Your task to perform on an android device: snooze an email in the gmail app Image 0: 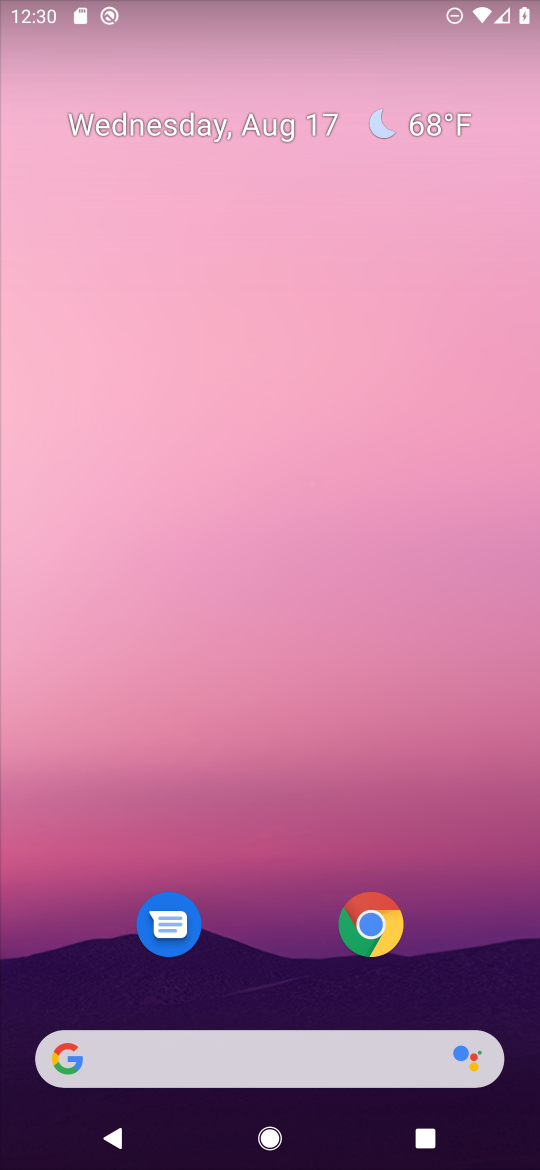
Step 0: drag from (260, 980) to (280, 190)
Your task to perform on an android device: snooze an email in the gmail app Image 1: 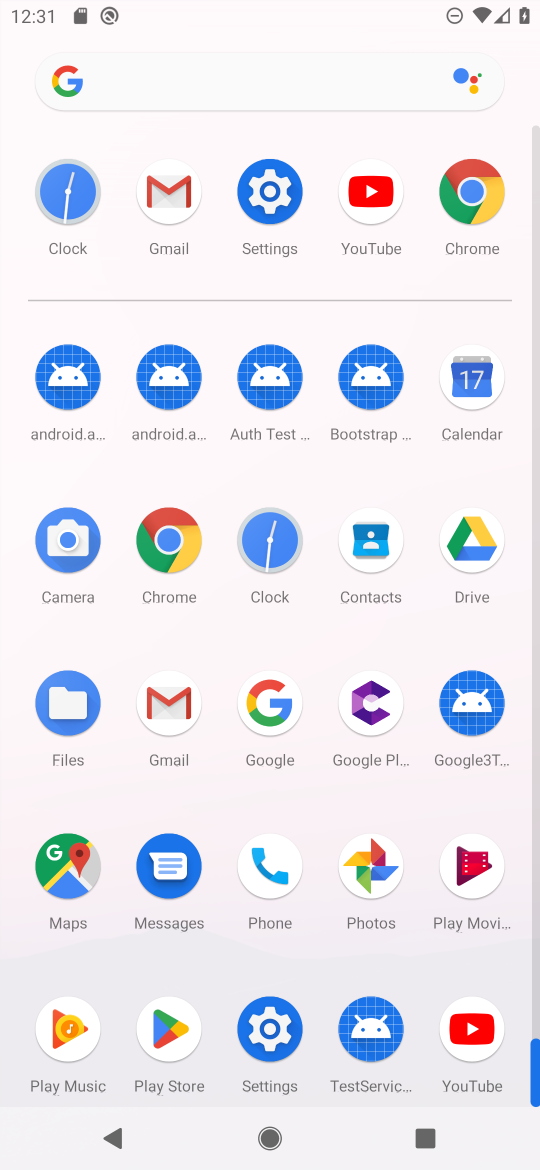
Step 1: click (179, 189)
Your task to perform on an android device: snooze an email in the gmail app Image 2: 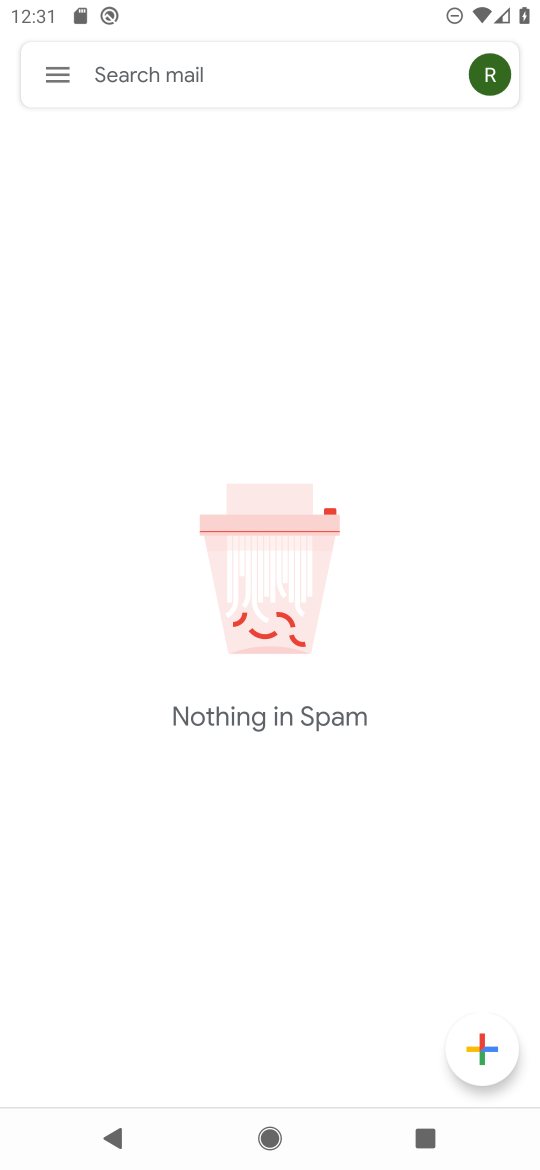
Step 2: click (55, 84)
Your task to perform on an android device: snooze an email in the gmail app Image 3: 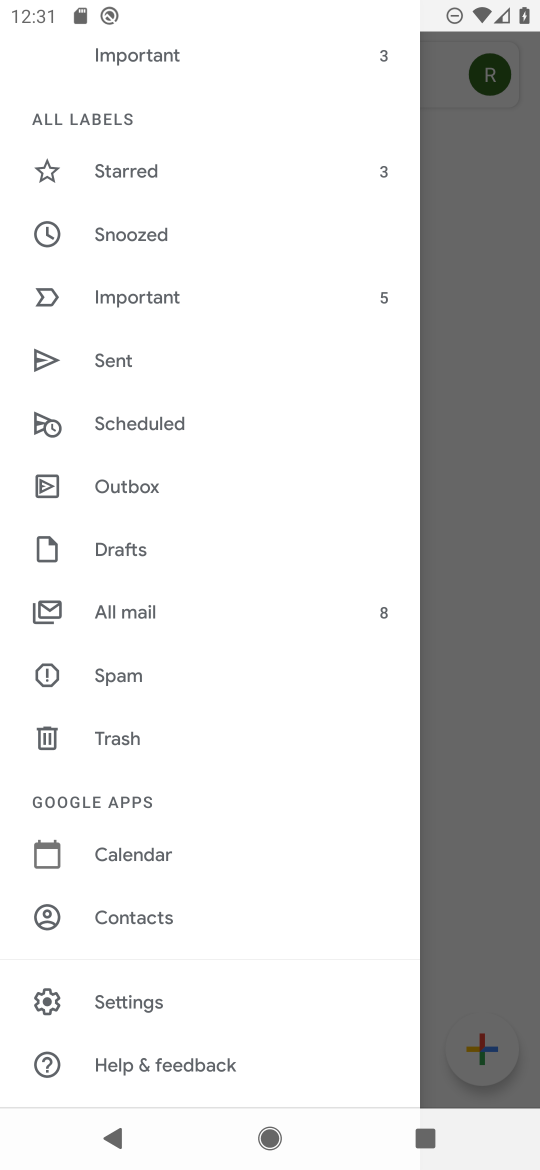
Step 3: drag from (228, 108) to (296, 933)
Your task to perform on an android device: snooze an email in the gmail app Image 4: 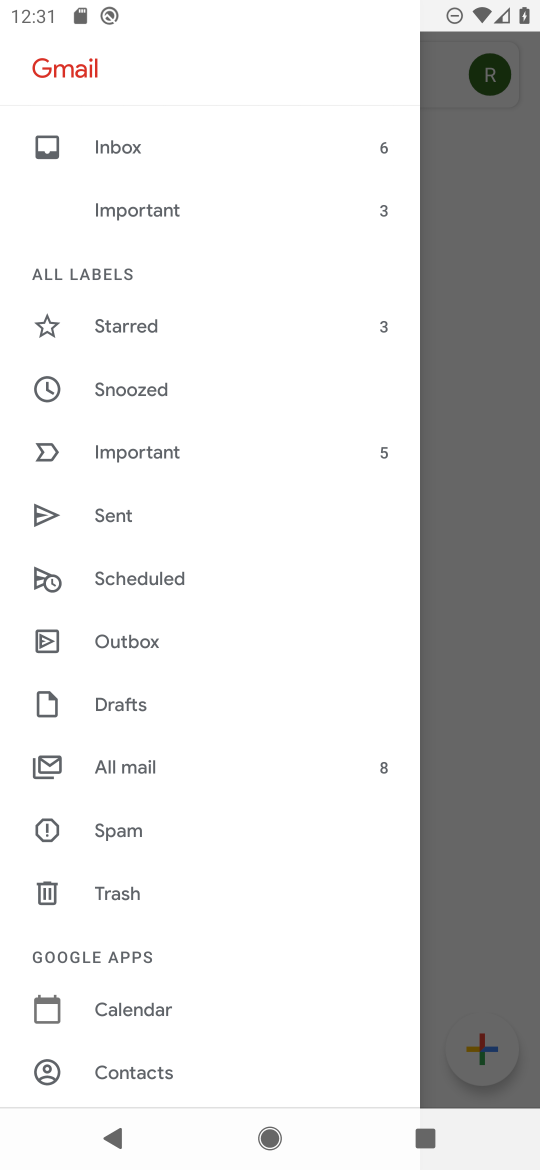
Step 4: click (216, 758)
Your task to perform on an android device: snooze an email in the gmail app Image 5: 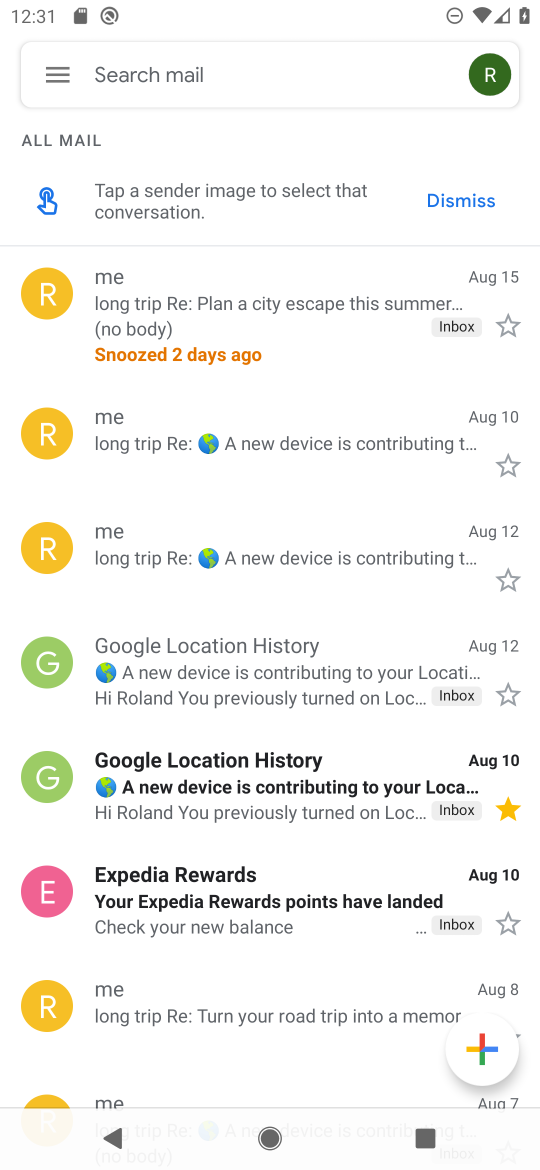
Step 5: click (48, 439)
Your task to perform on an android device: snooze an email in the gmail app Image 6: 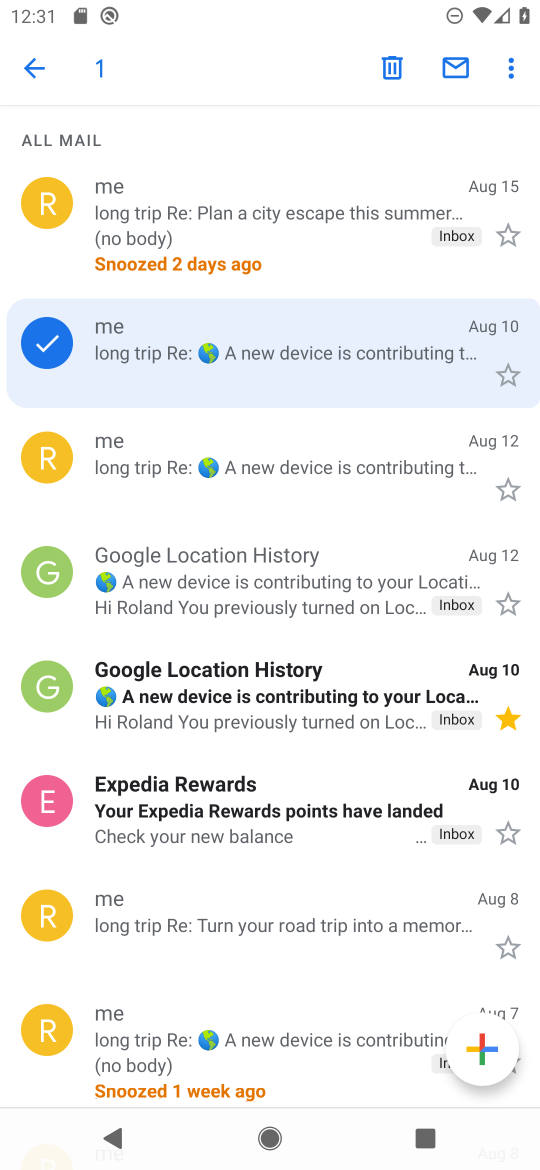
Step 6: click (520, 68)
Your task to perform on an android device: snooze an email in the gmail app Image 7: 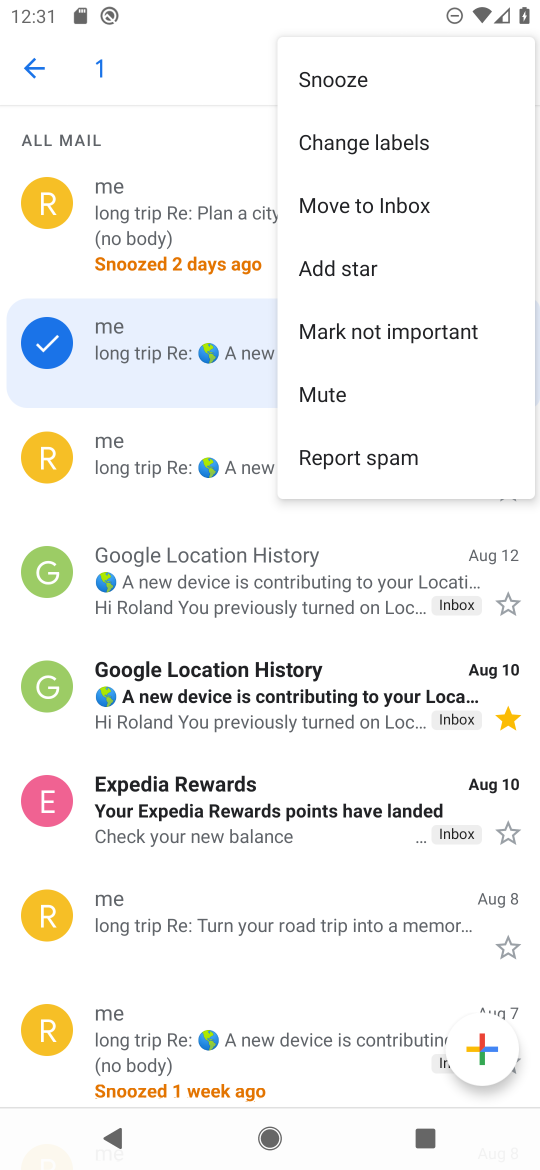
Step 7: click (376, 64)
Your task to perform on an android device: snooze an email in the gmail app Image 8: 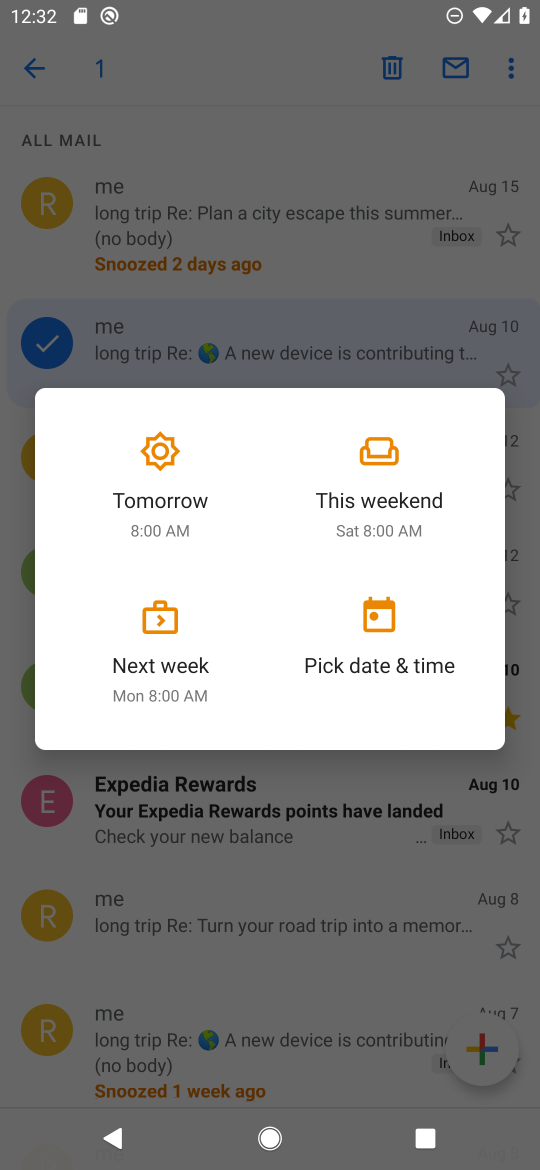
Step 8: click (179, 655)
Your task to perform on an android device: snooze an email in the gmail app Image 9: 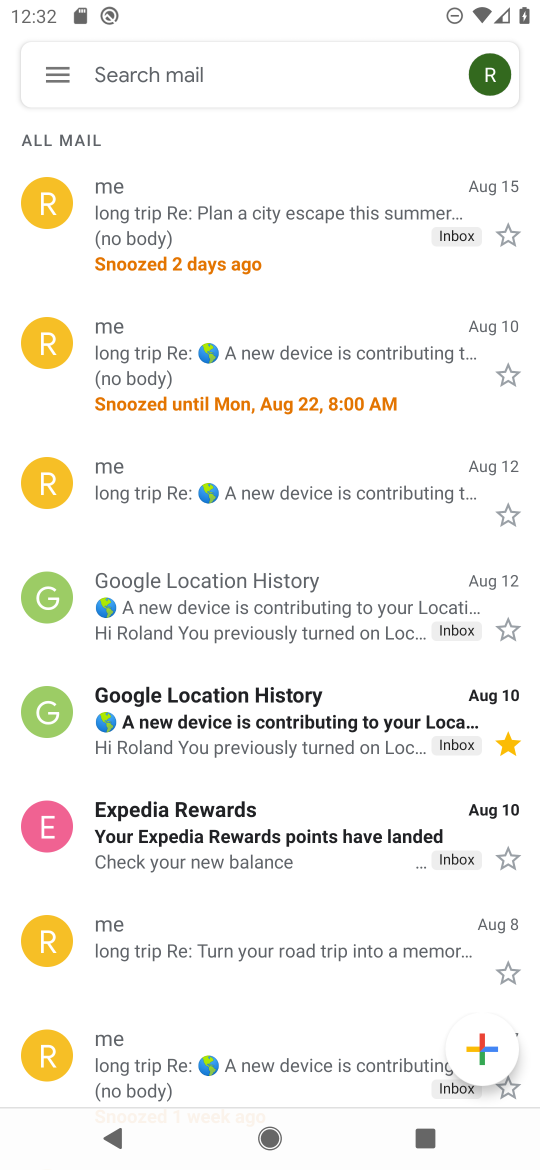
Step 9: task complete